Your task to perform on an android device: Search for pizza restaurants on Maps Image 0: 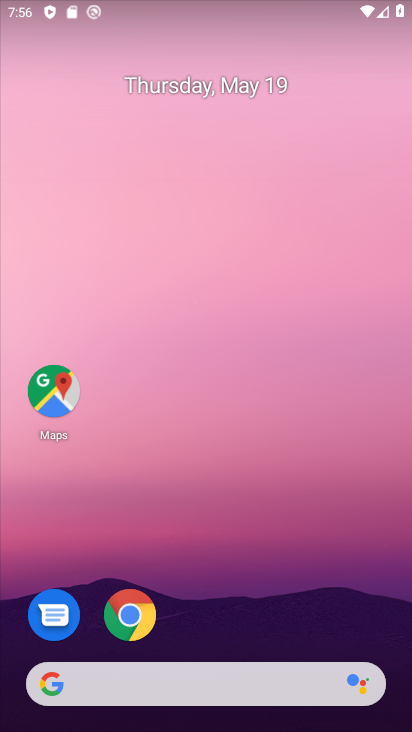
Step 0: click (46, 386)
Your task to perform on an android device: Search for pizza restaurants on Maps Image 1: 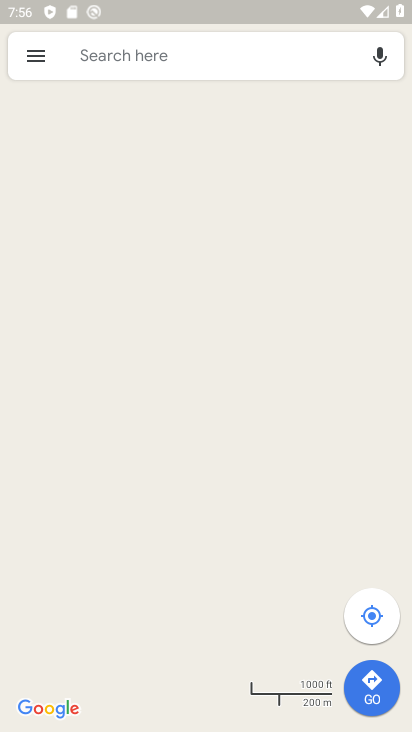
Step 1: click (145, 49)
Your task to perform on an android device: Search for pizza restaurants on Maps Image 2: 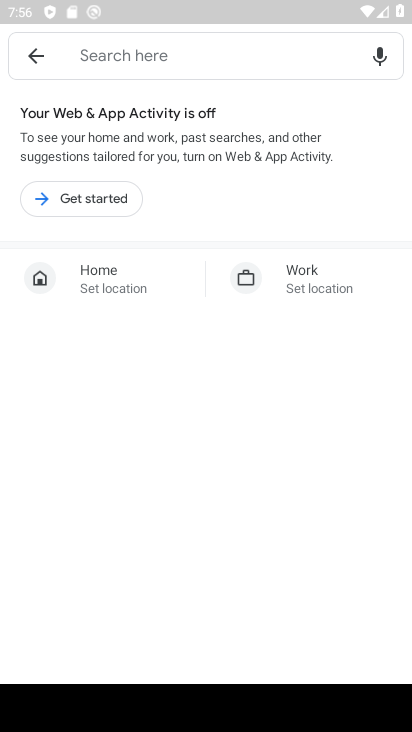
Step 2: click (99, 190)
Your task to perform on an android device: Search for pizza restaurants on Maps Image 3: 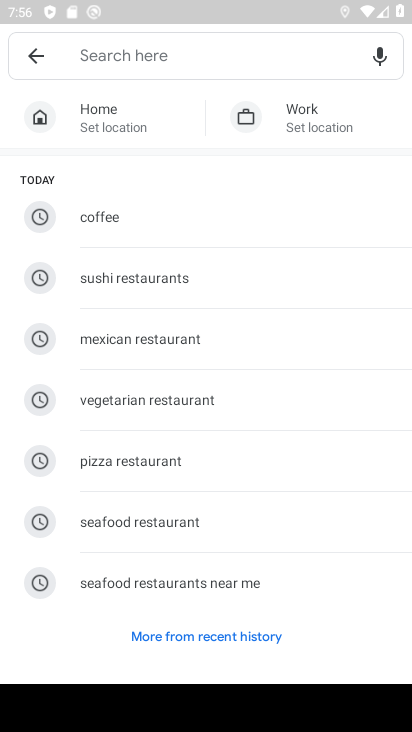
Step 3: click (161, 464)
Your task to perform on an android device: Search for pizza restaurants on Maps Image 4: 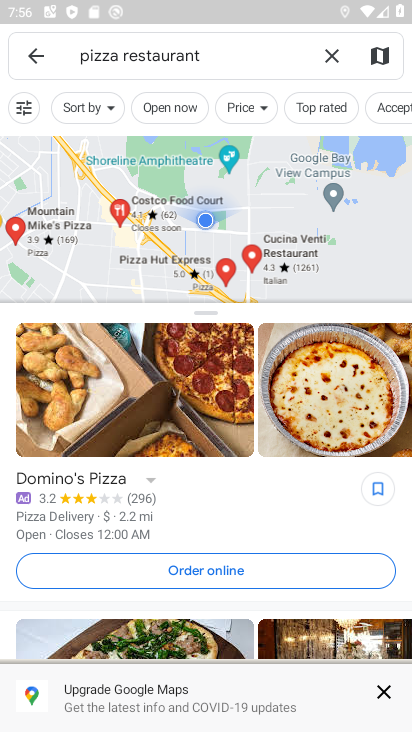
Step 4: task complete